Your task to perform on an android device: Open Google Chrome and open the bookmarks view Image 0: 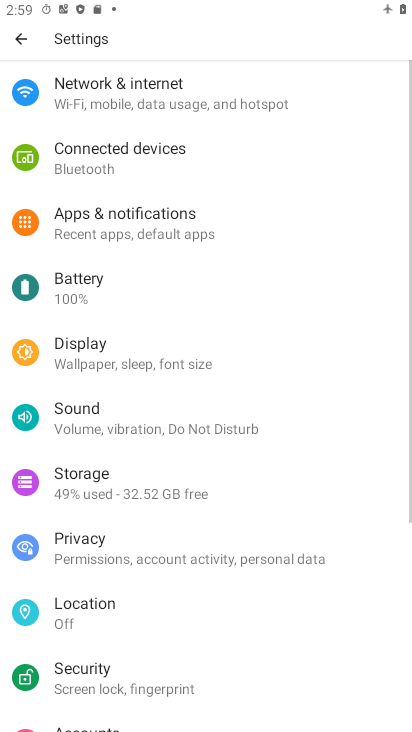
Step 0: press home button
Your task to perform on an android device: Open Google Chrome and open the bookmarks view Image 1: 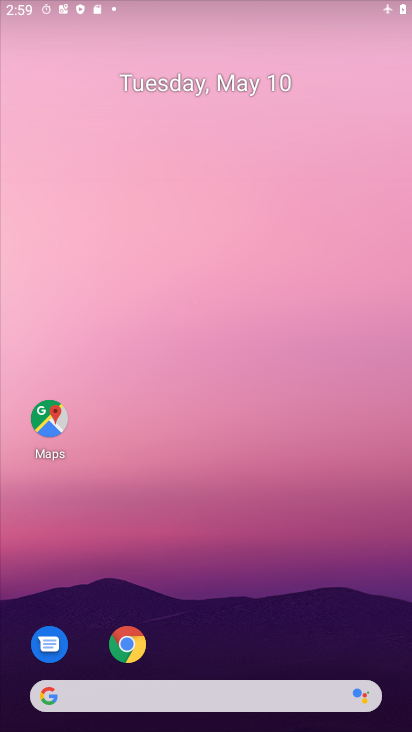
Step 1: drag from (269, 562) to (211, 205)
Your task to perform on an android device: Open Google Chrome and open the bookmarks view Image 2: 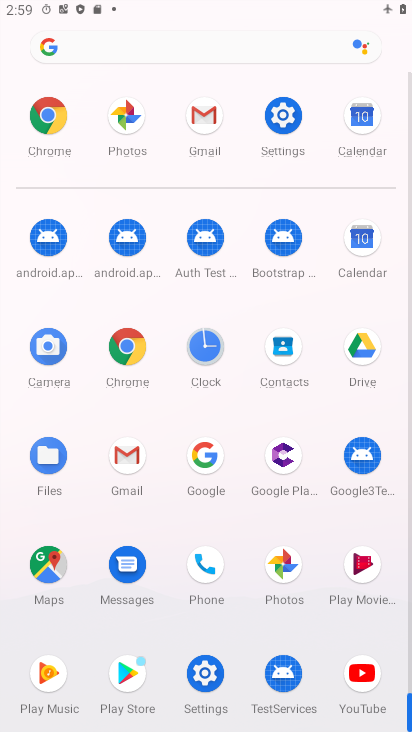
Step 2: click (240, 223)
Your task to perform on an android device: Open Google Chrome and open the bookmarks view Image 3: 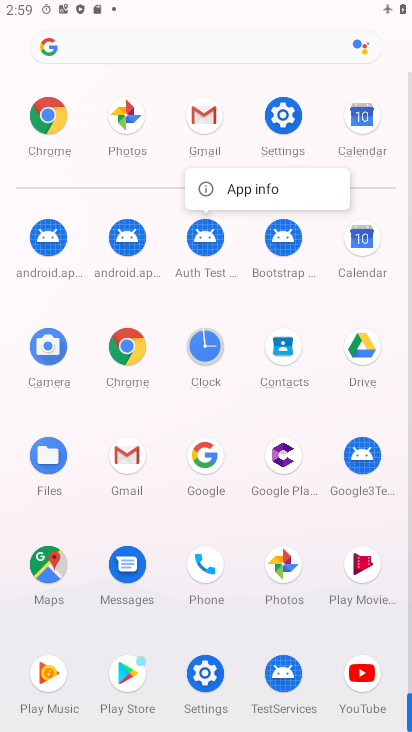
Step 3: drag from (83, 203) to (89, 77)
Your task to perform on an android device: Open Google Chrome and open the bookmarks view Image 4: 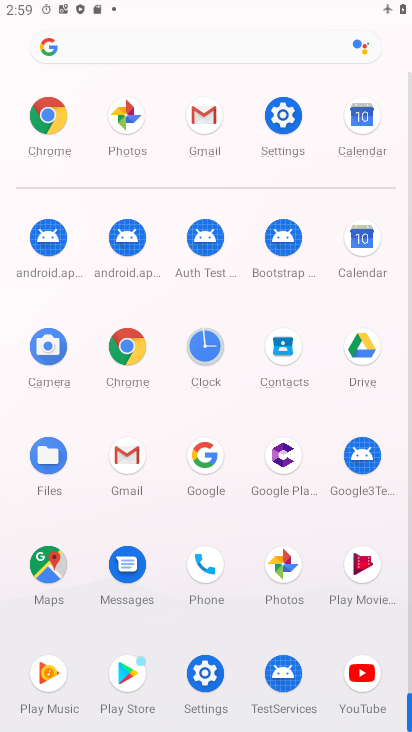
Step 4: drag from (88, 209) to (74, 144)
Your task to perform on an android device: Open Google Chrome and open the bookmarks view Image 5: 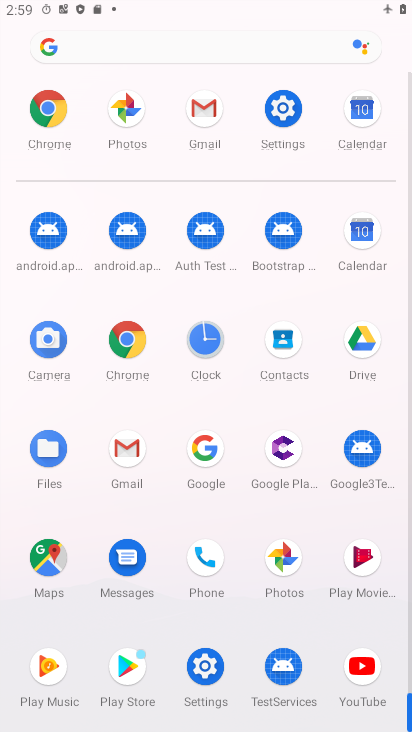
Step 5: click (138, 362)
Your task to perform on an android device: Open Google Chrome and open the bookmarks view Image 6: 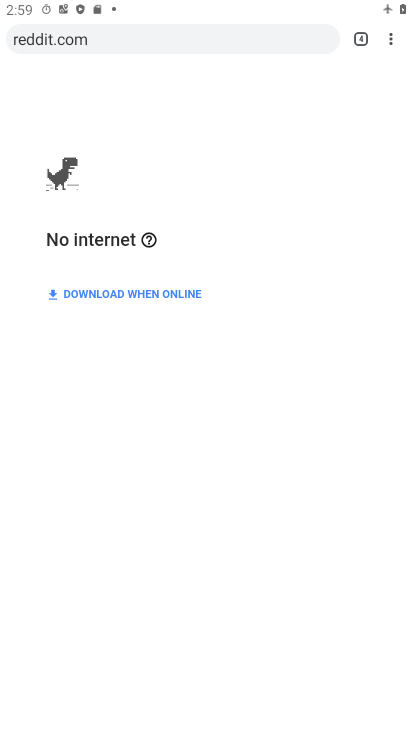
Step 6: click (386, 39)
Your task to perform on an android device: Open Google Chrome and open the bookmarks view Image 7: 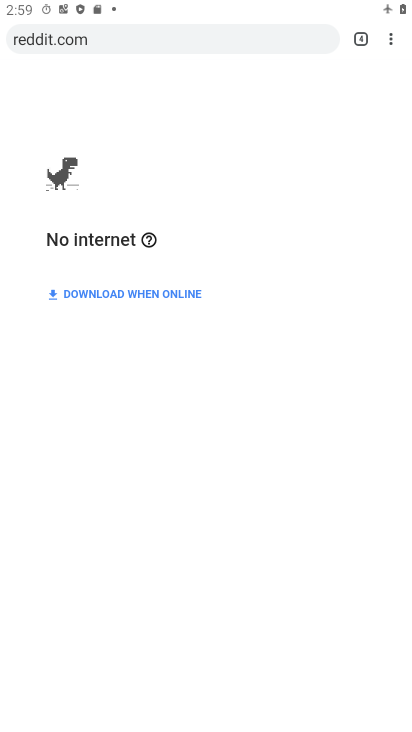
Step 7: click (394, 44)
Your task to perform on an android device: Open Google Chrome and open the bookmarks view Image 8: 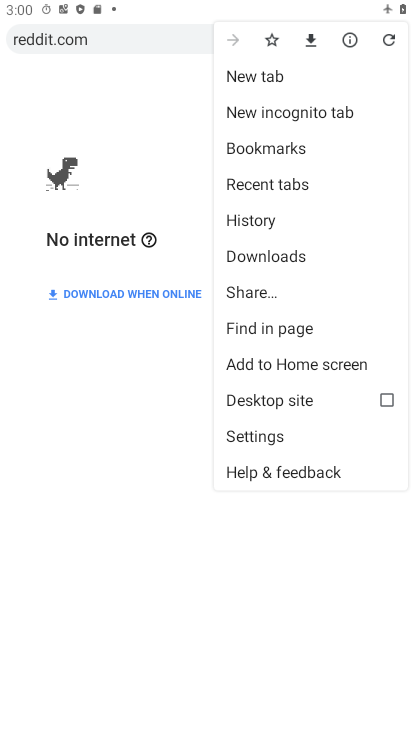
Step 8: click (298, 142)
Your task to perform on an android device: Open Google Chrome and open the bookmarks view Image 9: 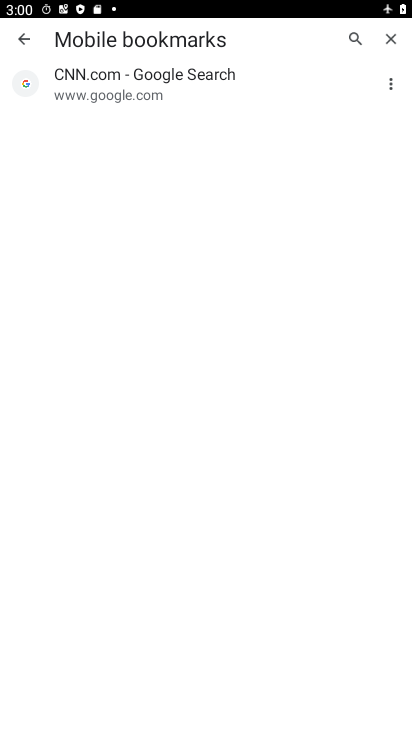
Step 9: click (237, 96)
Your task to perform on an android device: Open Google Chrome and open the bookmarks view Image 10: 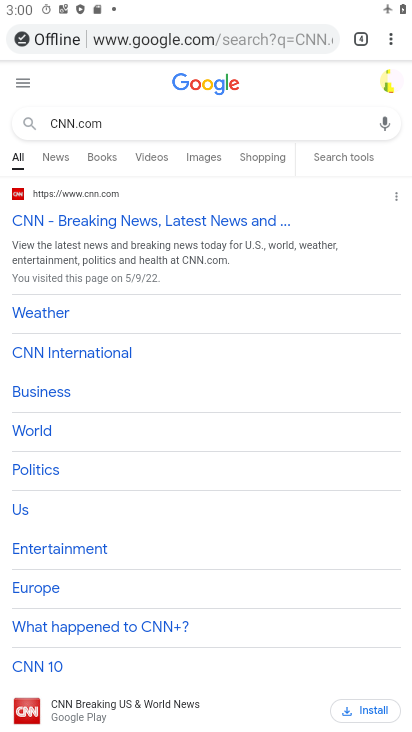
Step 10: task complete